Your task to perform on an android device: What's the weather going to be this weekend? Image 0: 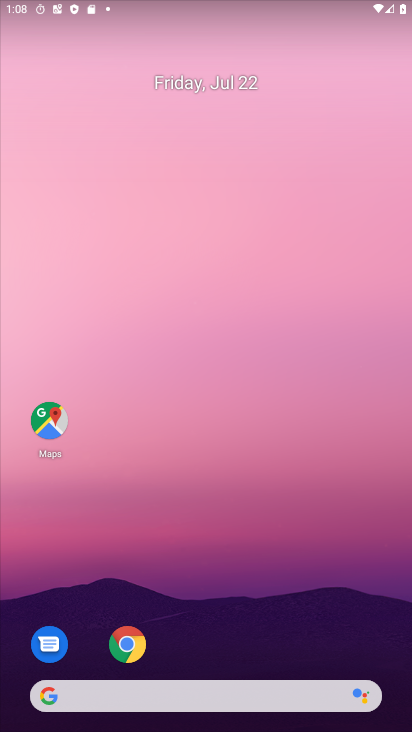
Step 0: drag from (266, 666) to (254, 199)
Your task to perform on an android device: What's the weather going to be this weekend? Image 1: 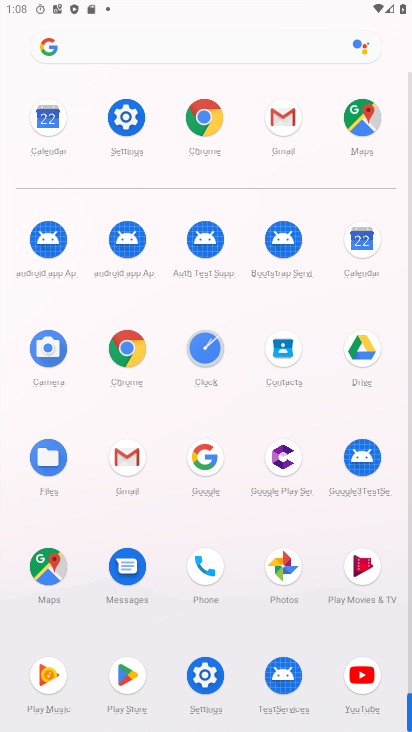
Step 1: click (209, 485)
Your task to perform on an android device: What's the weather going to be this weekend? Image 2: 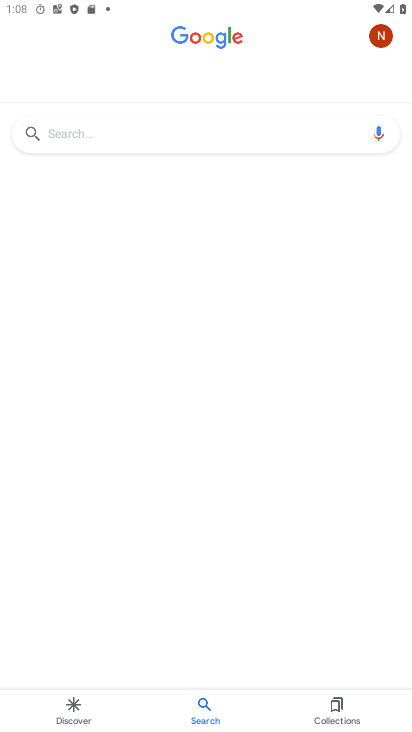
Step 2: click (154, 143)
Your task to perform on an android device: What's the weather going to be this weekend? Image 3: 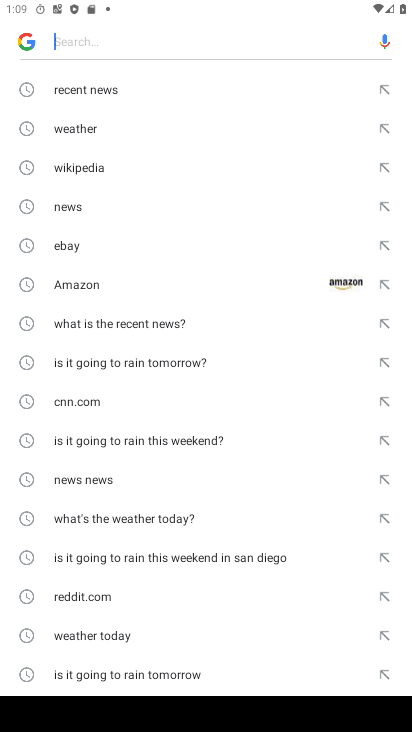
Step 3: click (108, 131)
Your task to perform on an android device: What's the weather going to be this weekend? Image 4: 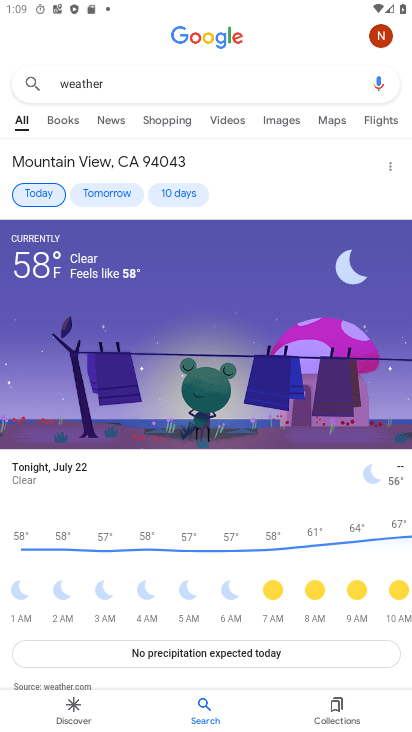
Step 4: click (185, 195)
Your task to perform on an android device: What's the weather going to be this weekend? Image 5: 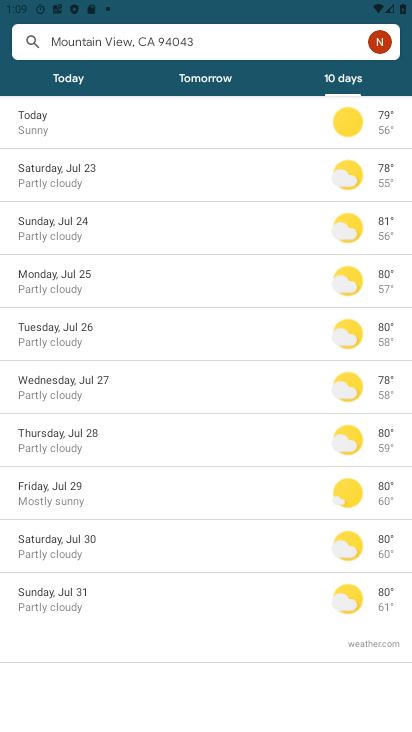
Step 5: task complete